Your task to perform on an android device: Find coffee shops on Maps Image 0: 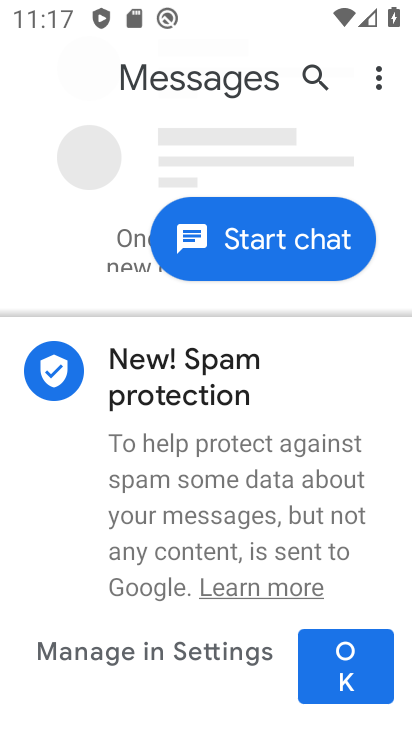
Step 0: press home button
Your task to perform on an android device: Find coffee shops on Maps Image 1: 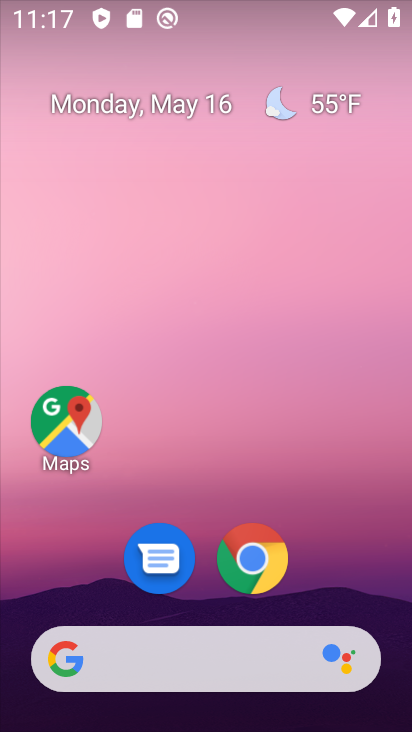
Step 1: click (70, 424)
Your task to perform on an android device: Find coffee shops on Maps Image 2: 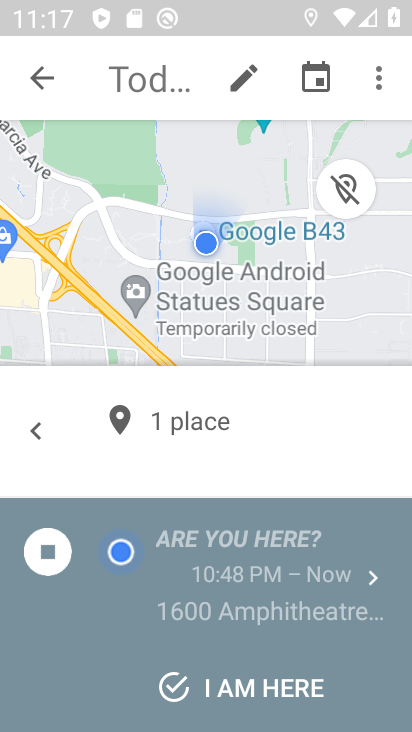
Step 2: press back button
Your task to perform on an android device: Find coffee shops on Maps Image 3: 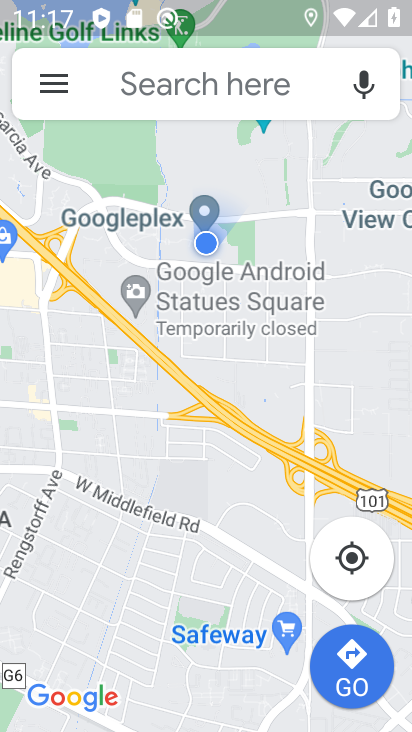
Step 3: click (167, 87)
Your task to perform on an android device: Find coffee shops on Maps Image 4: 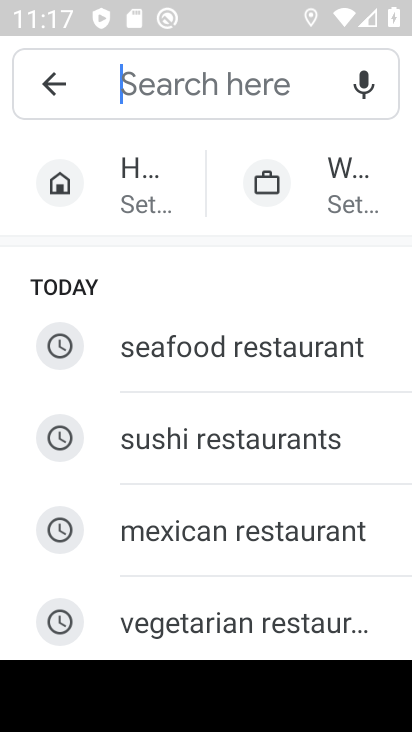
Step 4: type "coffee"
Your task to perform on an android device: Find coffee shops on Maps Image 5: 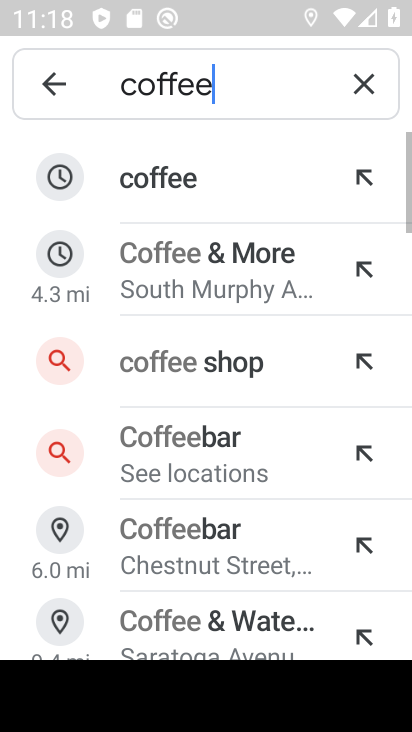
Step 5: click (186, 182)
Your task to perform on an android device: Find coffee shops on Maps Image 6: 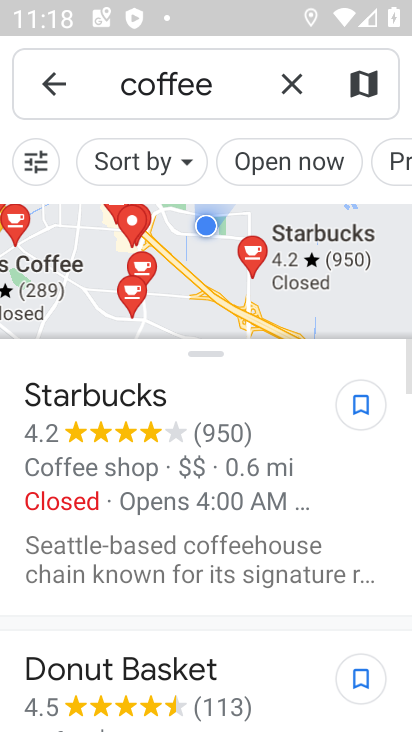
Step 6: task complete